Your task to perform on an android device: Show me popular games on the Play Store Image 0: 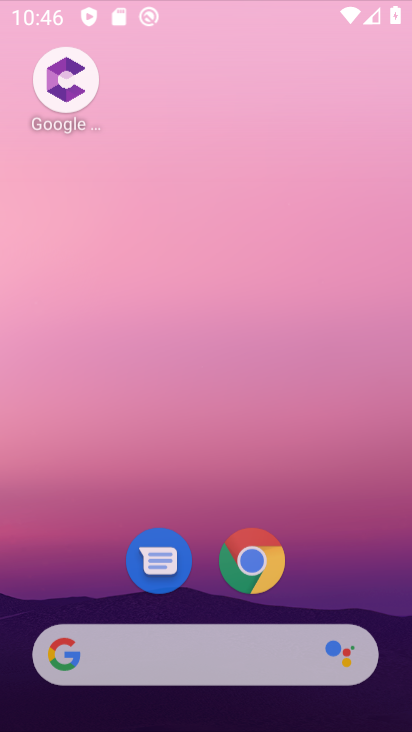
Step 0: press home button
Your task to perform on an android device: Show me popular games on the Play Store Image 1: 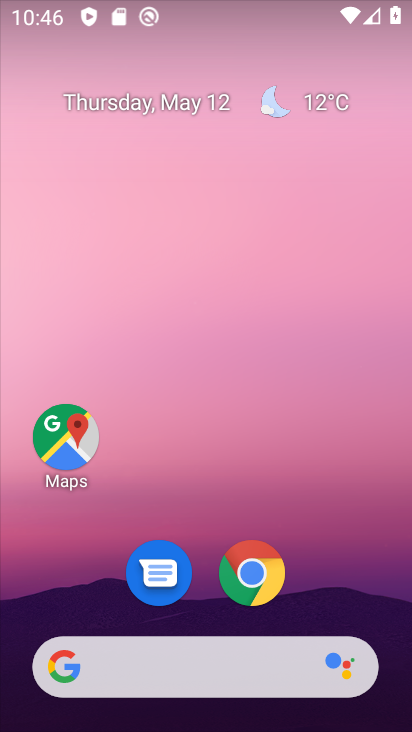
Step 1: drag from (366, 586) to (349, 138)
Your task to perform on an android device: Show me popular games on the Play Store Image 2: 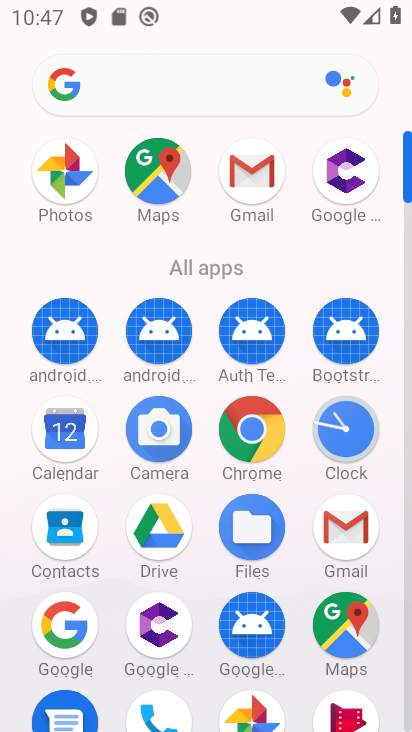
Step 2: click (157, 267)
Your task to perform on an android device: Show me popular games on the Play Store Image 3: 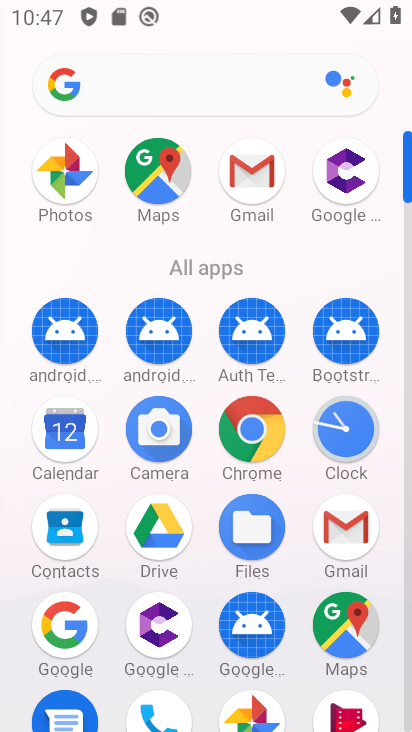
Step 3: click (406, 696)
Your task to perform on an android device: Show me popular games on the Play Store Image 4: 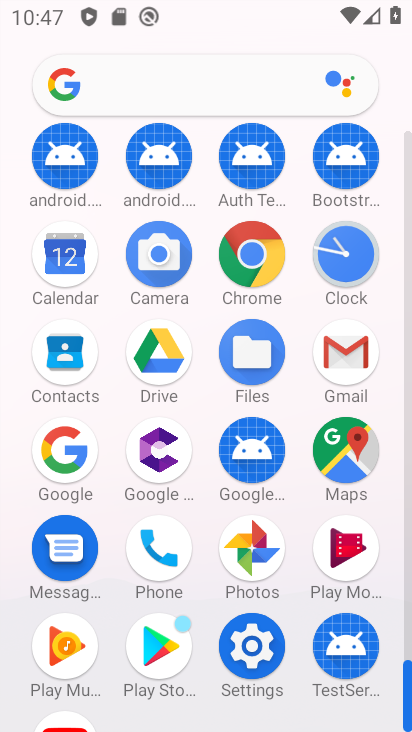
Step 4: click (156, 619)
Your task to perform on an android device: Show me popular games on the Play Store Image 5: 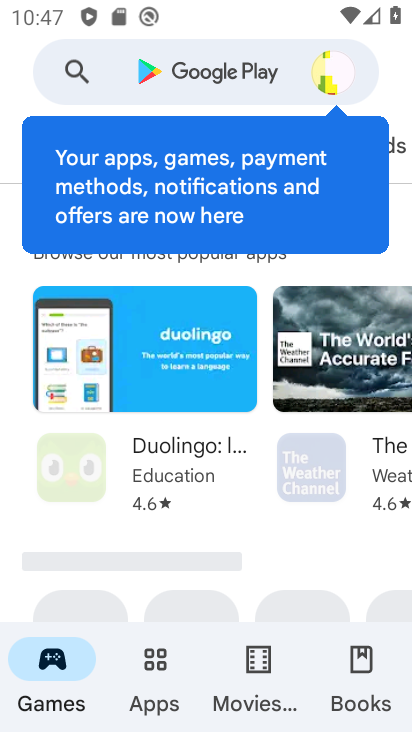
Step 5: click (224, 73)
Your task to perform on an android device: Show me popular games on the Play Store Image 6: 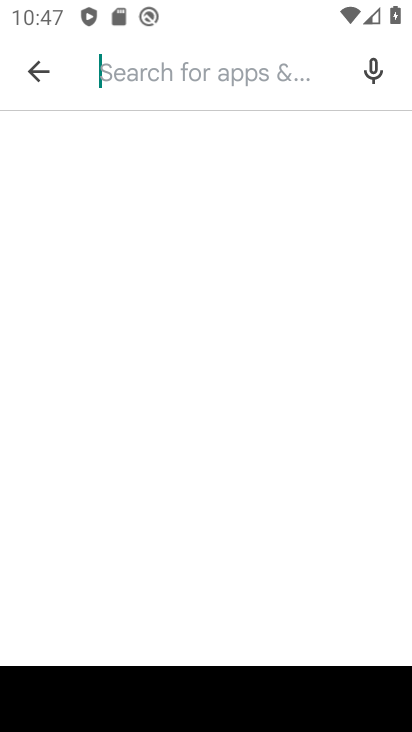
Step 6: click (184, 69)
Your task to perform on an android device: Show me popular games on the Play Store Image 7: 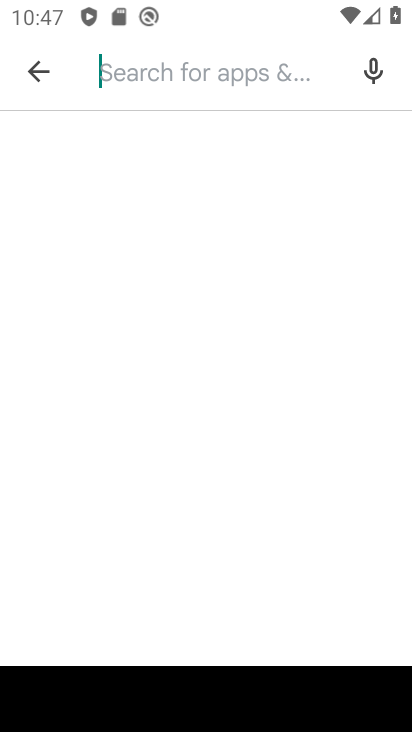
Step 7: type " Reddit.com"
Your task to perform on an android device: Show me popular games on the Play Store Image 8: 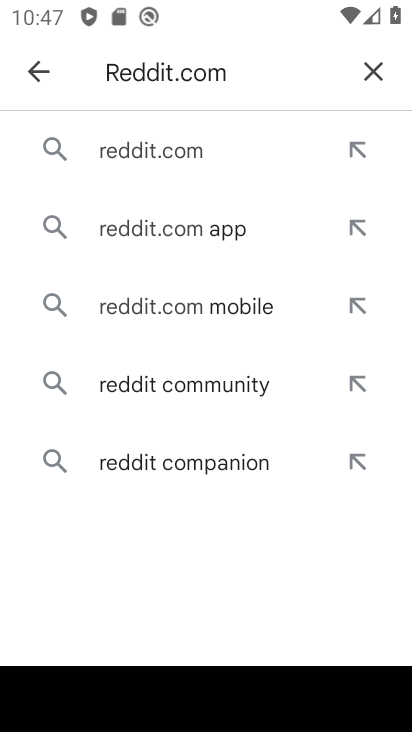
Step 8: click (110, 154)
Your task to perform on an android device: Show me popular games on the Play Store Image 9: 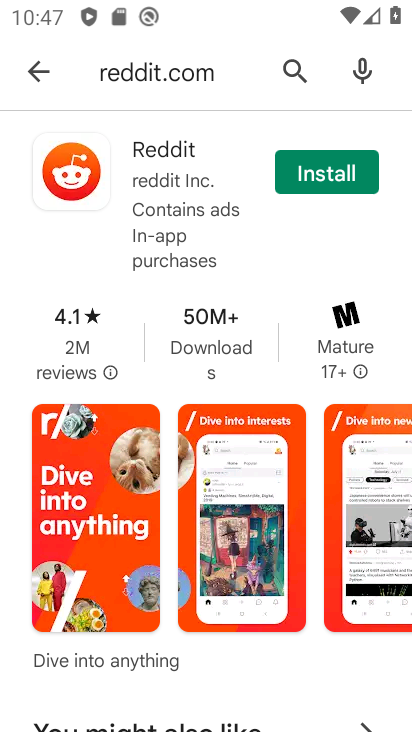
Step 9: task complete